Your task to perform on an android device: open app "Pandora - Music & Podcasts" Image 0: 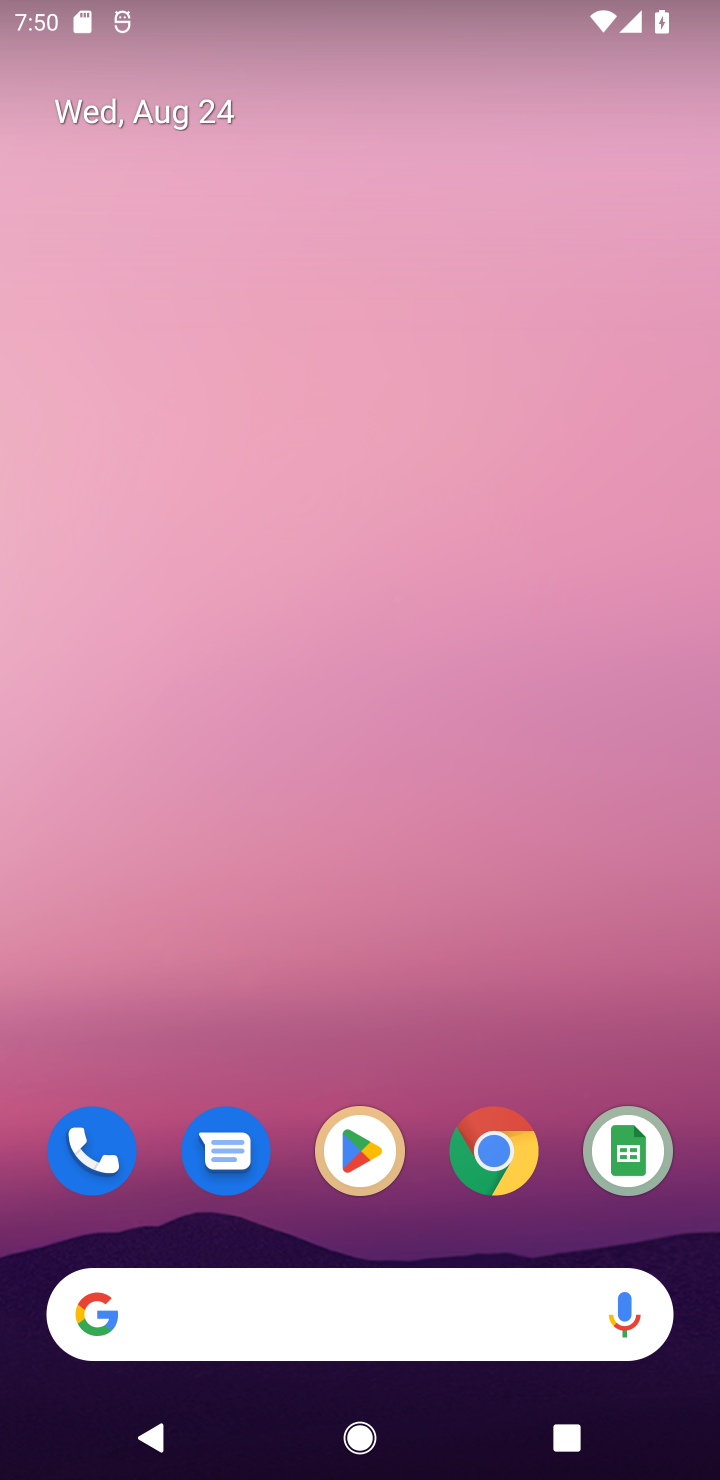
Step 0: click (363, 1149)
Your task to perform on an android device: open app "Pandora - Music & Podcasts" Image 1: 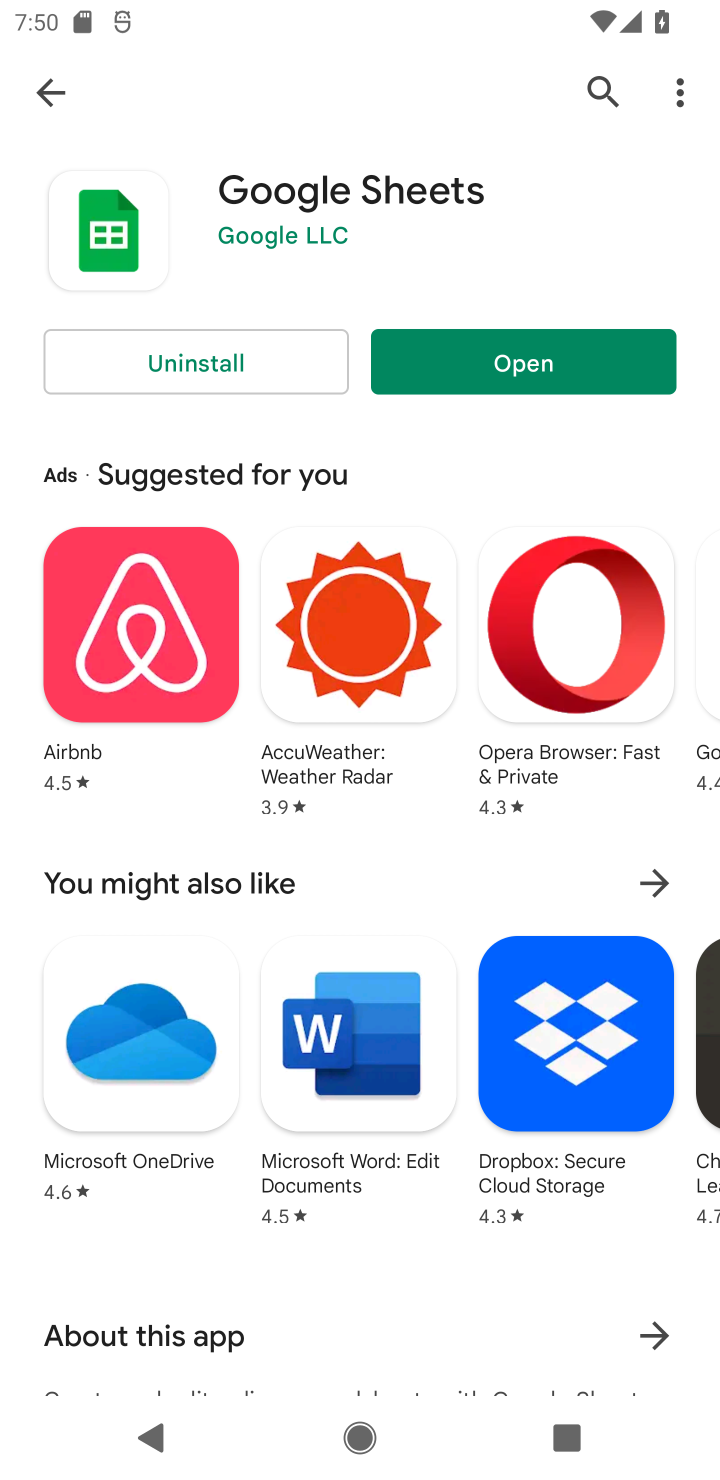
Step 1: click (602, 81)
Your task to perform on an android device: open app "Pandora - Music & Podcasts" Image 2: 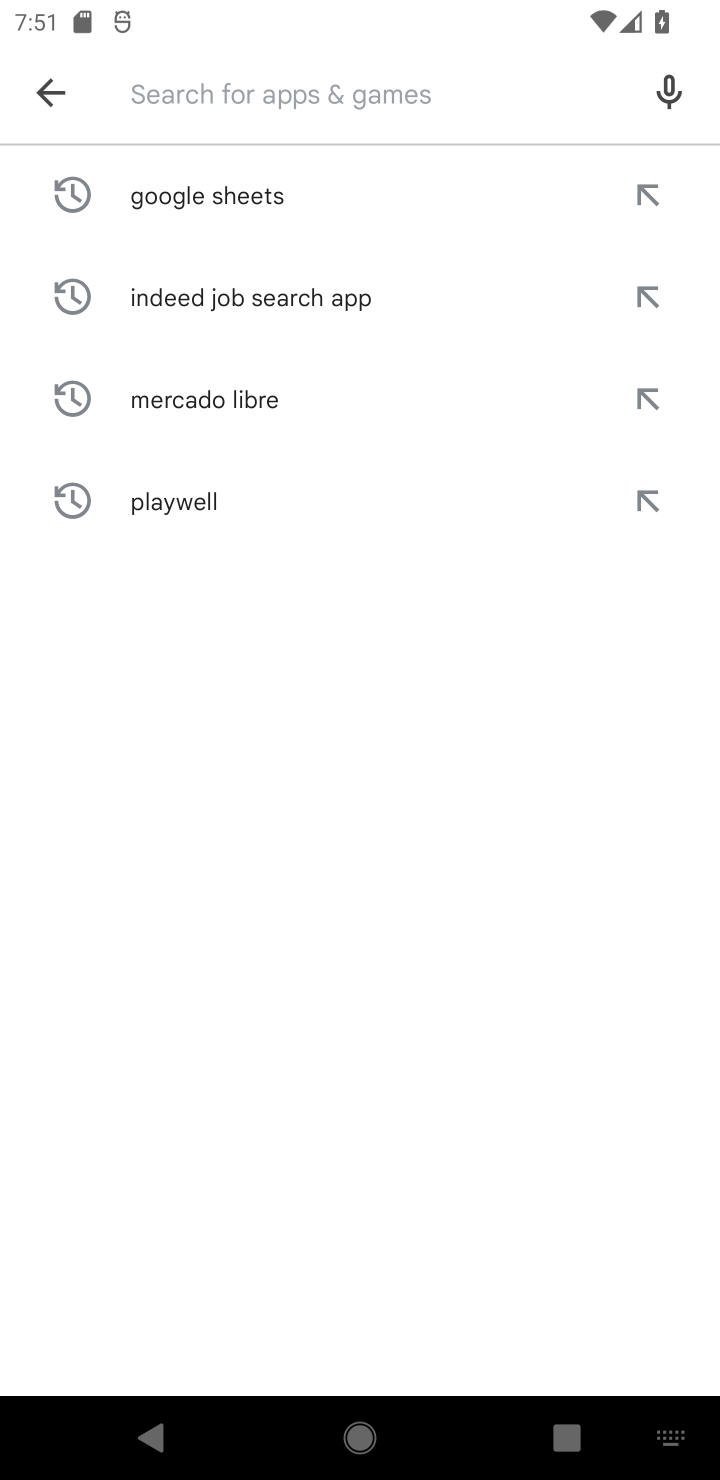
Step 2: type "Pandora - Music & Podcasts"
Your task to perform on an android device: open app "Pandora - Music & Podcasts" Image 3: 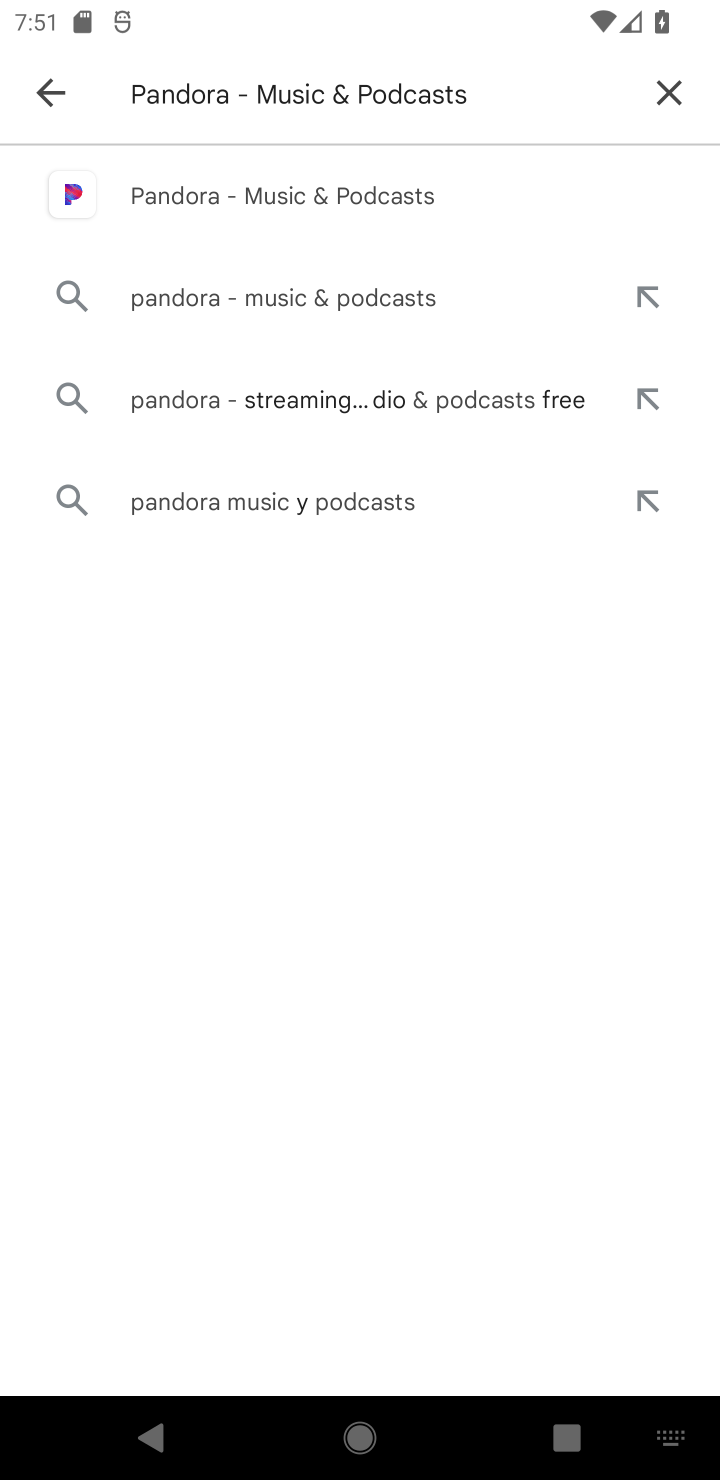
Step 3: click (199, 186)
Your task to perform on an android device: open app "Pandora - Music & Podcasts" Image 4: 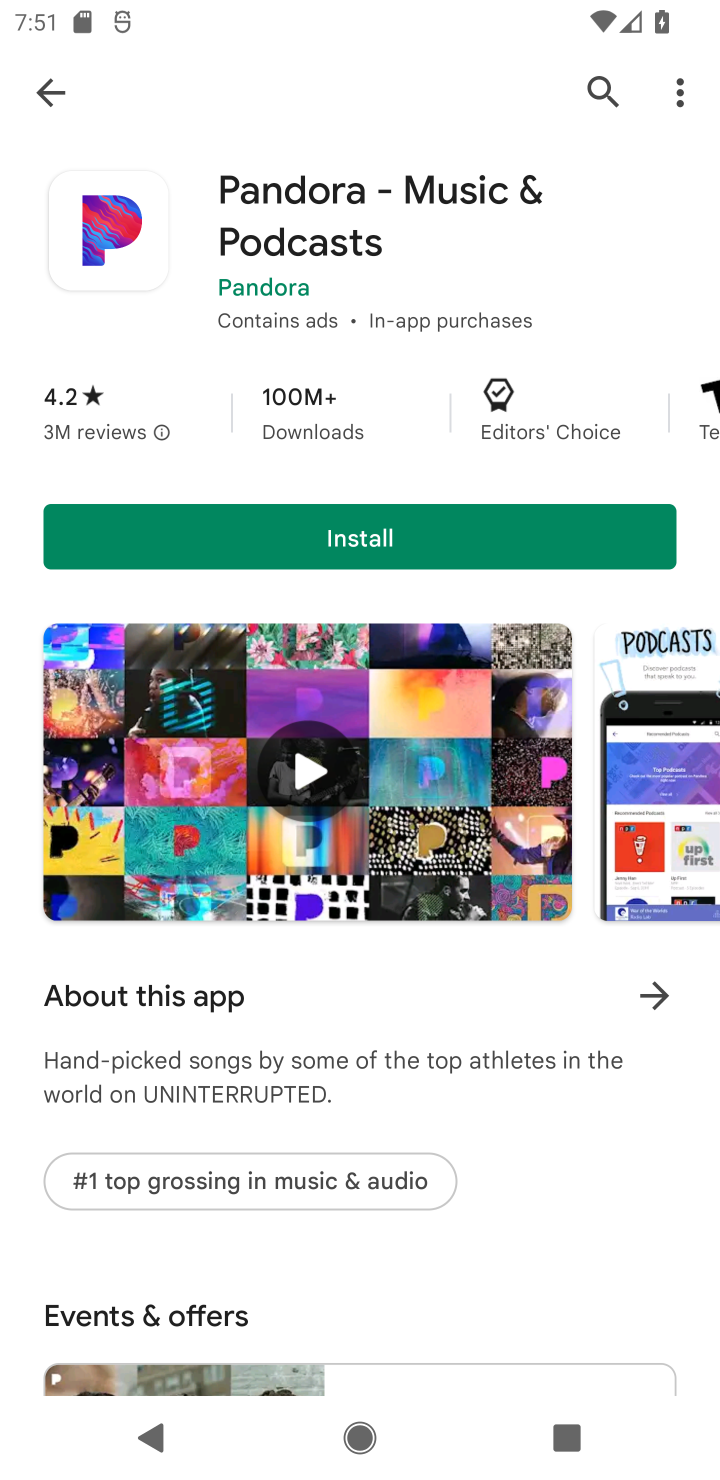
Step 4: task complete